Your task to perform on an android device: turn on the 12-hour format for clock Image 0: 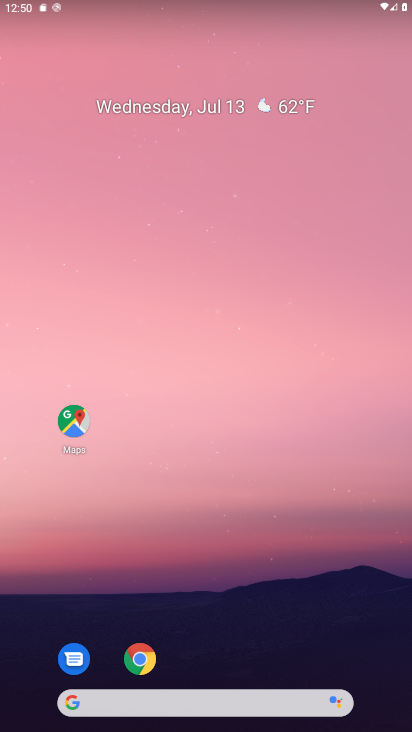
Step 0: drag from (230, 678) to (177, 228)
Your task to perform on an android device: turn on the 12-hour format for clock Image 1: 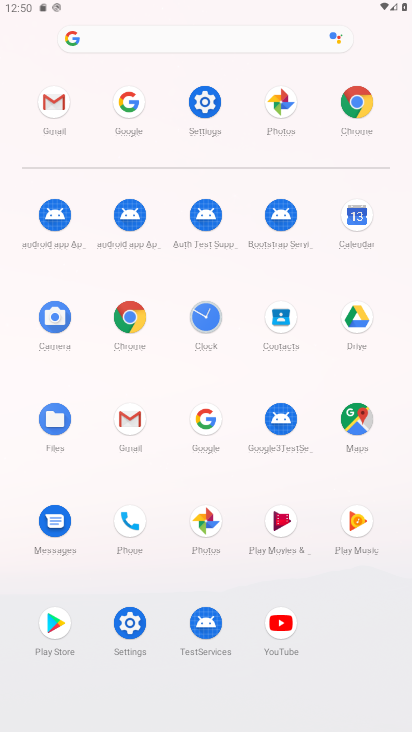
Step 1: click (208, 313)
Your task to perform on an android device: turn on the 12-hour format for clock Image 2: 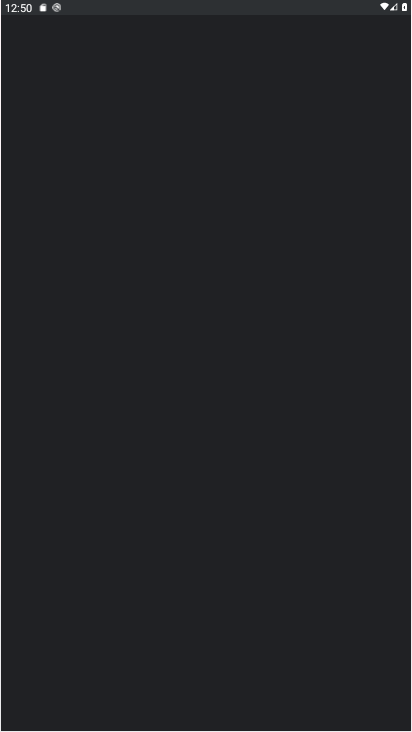
Step 2: click (214, 309)
Your task to perform on an android device: turn on the 12-hour format for clock Image 3: 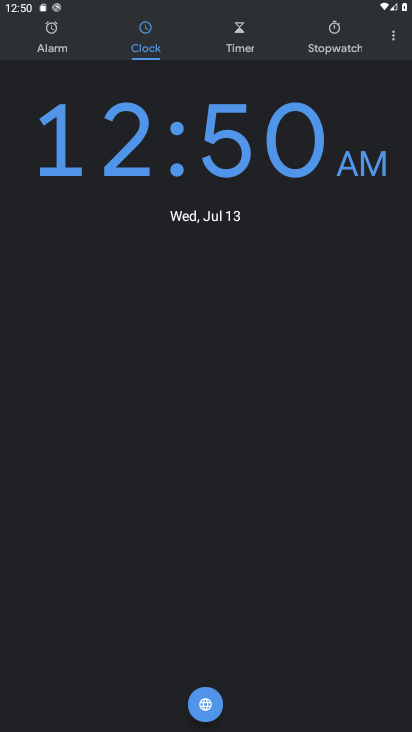
Step 3: click (214, 309)
Your task to perform on an android device: turn on the 12-hour format for clock Image 4: 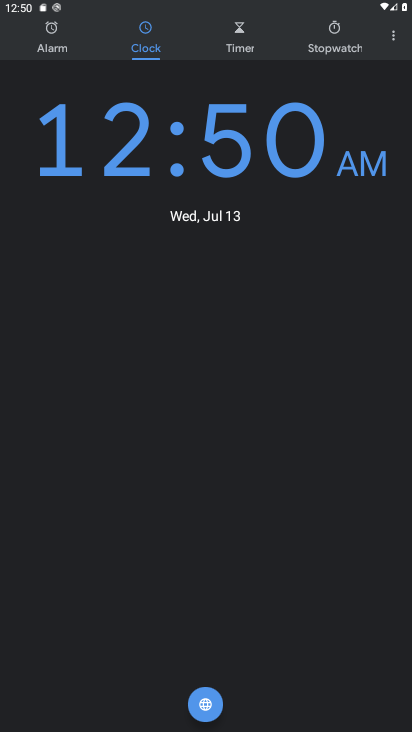
Step 4: click (214, 309)
Your task to perform on an android device: turn on the 12-hour format for clock Image 5: 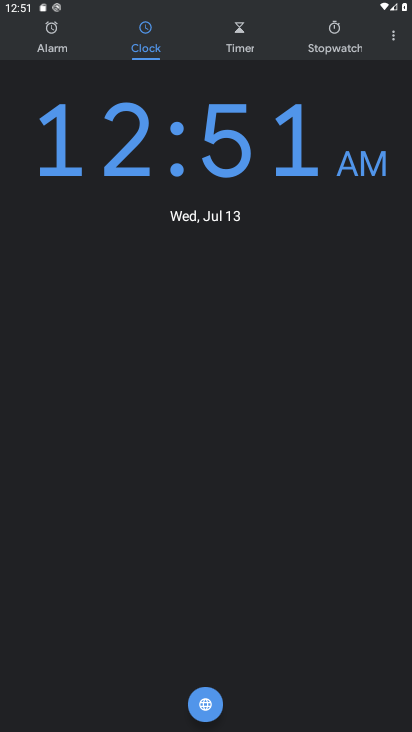
Step 5: click (397, 39)
Your task to perform on an android device: turn on the 12-hour format for clock Image 6: 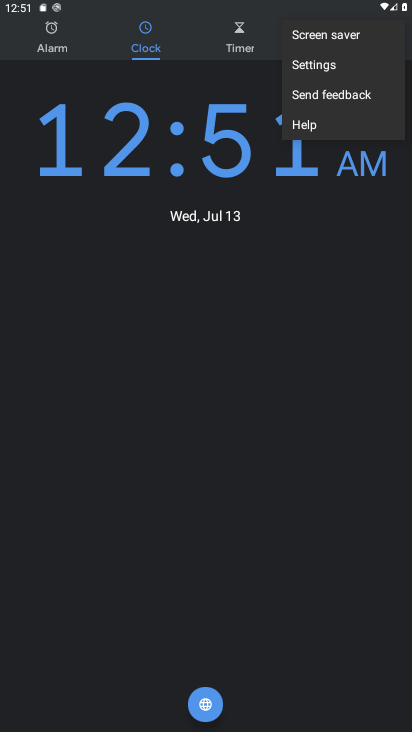
Step 6: click (303, 64)
Your task to perform on an android device: turn on the 12-hour format for clock Image 7: 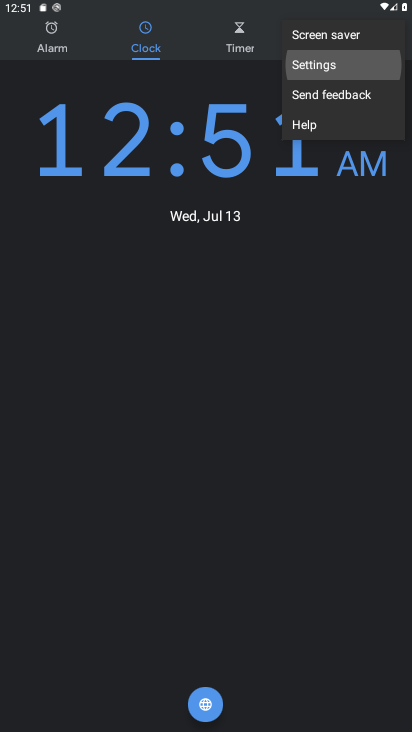
Step 7: click (305, 64)
Your task to perform on an android device: turn on the 12-hour format for clock Image 8: 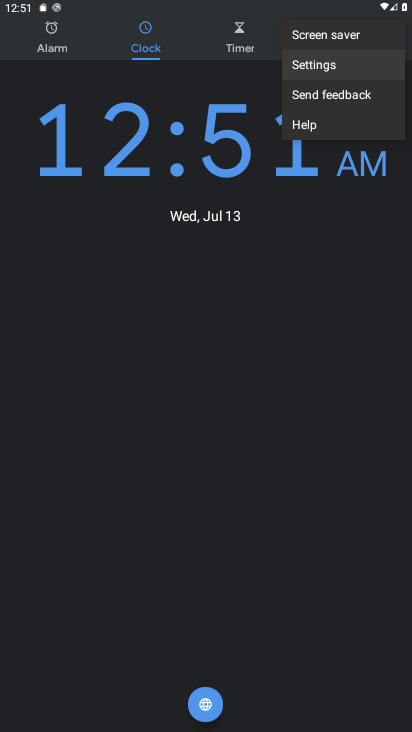
Step 8: click (306, 63)
Your task to perform on an android device: turn on the 12-hour format for clock Image 9: 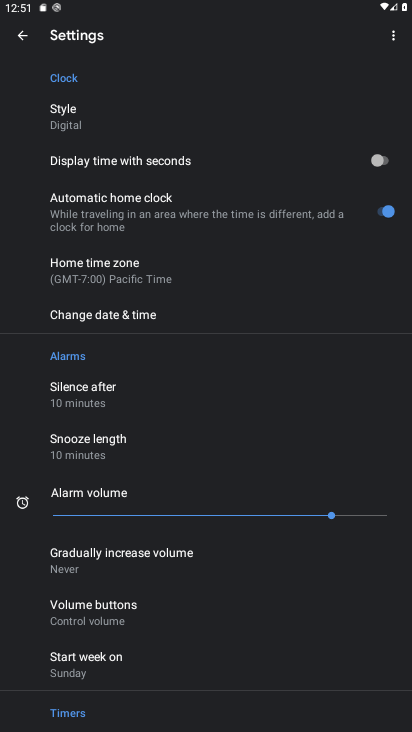
Step 9: click (109, 315)
Your task to perform on an android device: turn on the 12-hour format for clock Image 10: 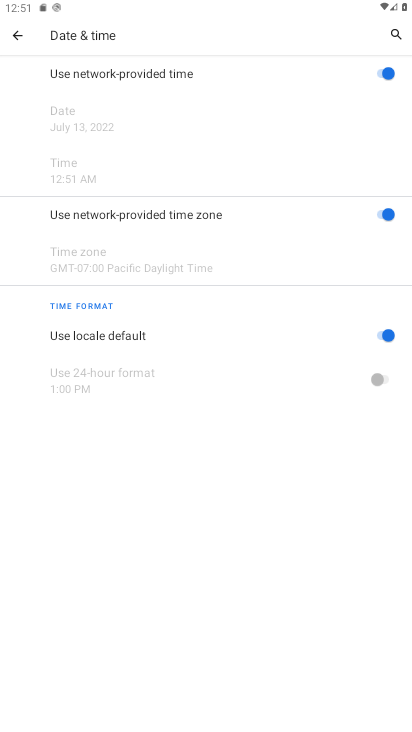
Step 10: task complete